Your task to perform on an android device: Open CNN.com Image 0: 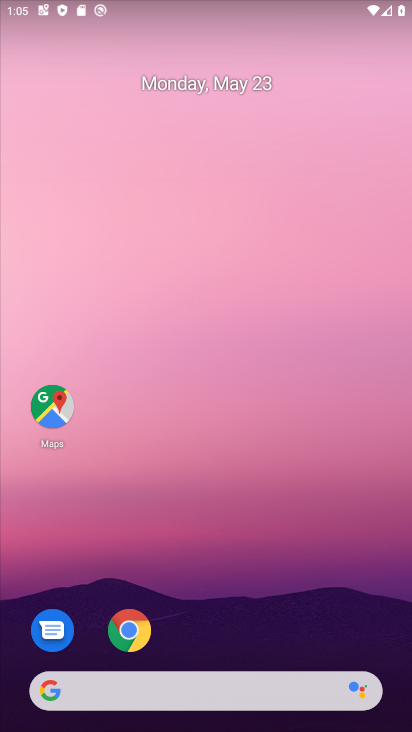
Step 0: drag from (305, 583) to (317, 253)
Your task to perform on an android device: Open CNN.com Image 1: 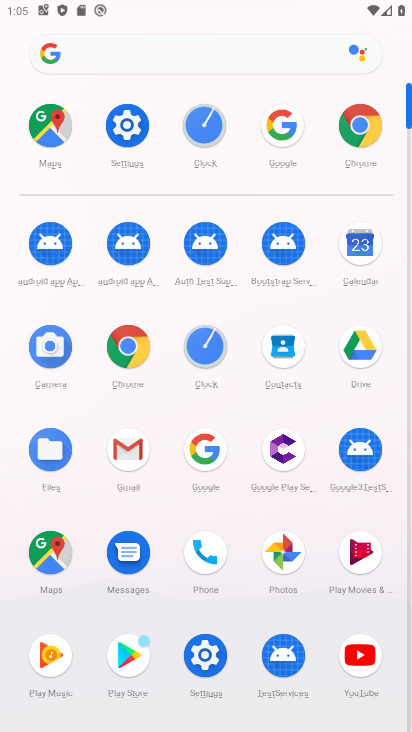
Step 1: click (139, 339)
Your task to perform on an android device: Open CNN.com Image 2: 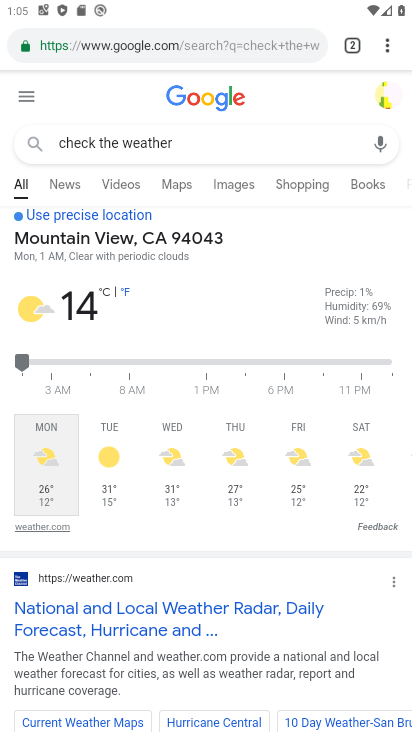
Step 2: click (144, 46)
Your task to perform on an android device: Open CNN.com Image 3: 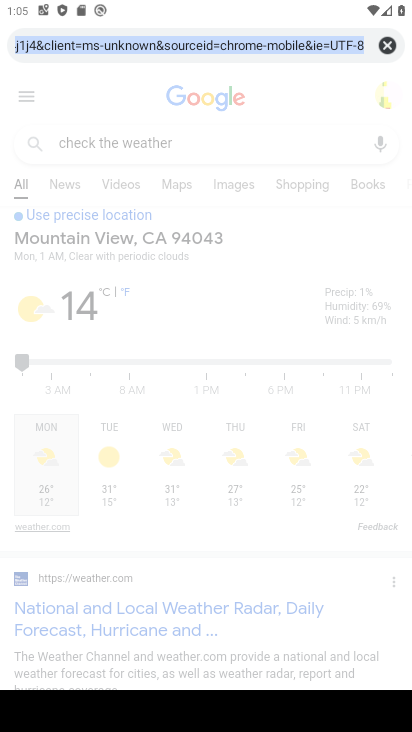
Step 3: click (390, 39)
Your task to perform on an android device: Open CNN.com Image 4: 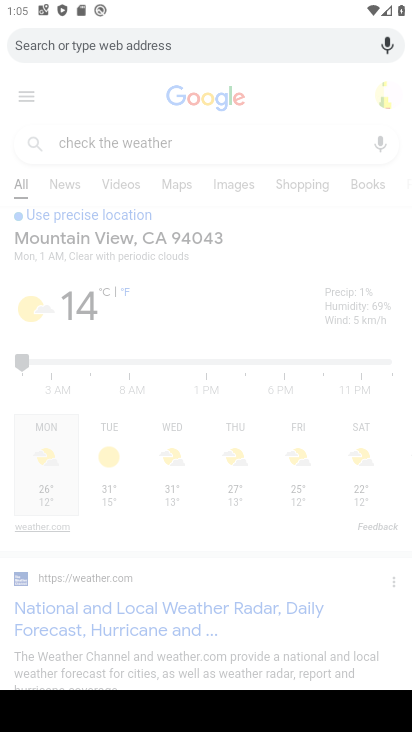
Step 4: type "cnn.com"
Your task to perform on an android device: Open CNN.com Image 5: 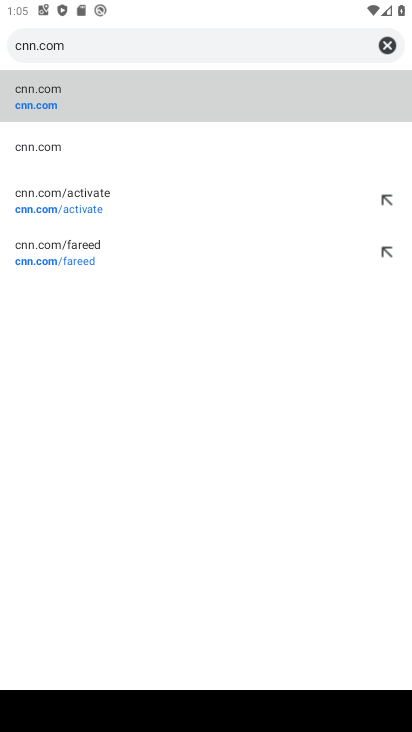
Step 5: click (52, 105)
Your task to perform on an android device: Open CNN.com Image 6: 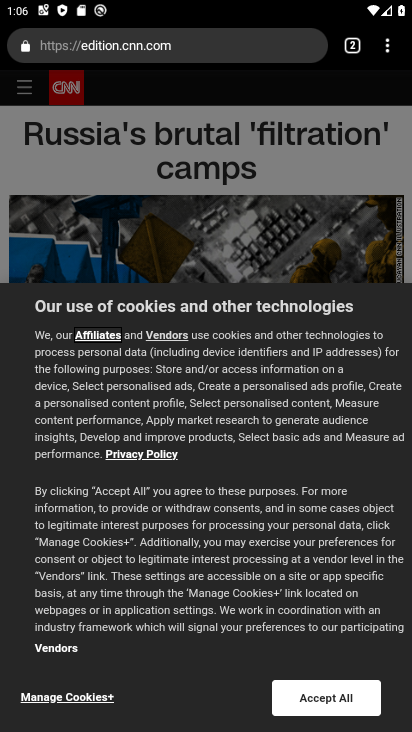
Step 6: task complete